Your task to perform on an android device: open app "Cash App" (install if not already installed) Image 0: 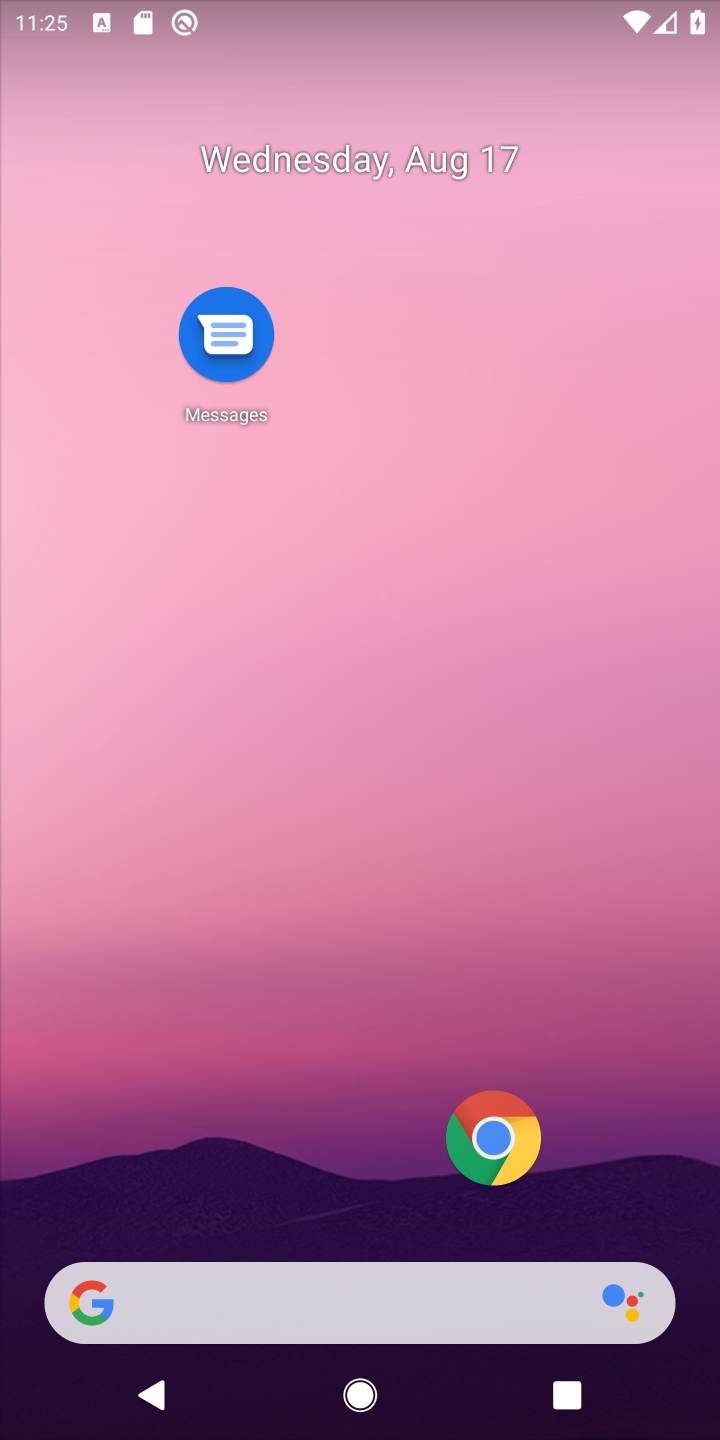
Step 0: drag from (350, 1221) to (473, 443)
Your task to perform on an android device: open app "Cash App" (install if not already installed) Image 1: 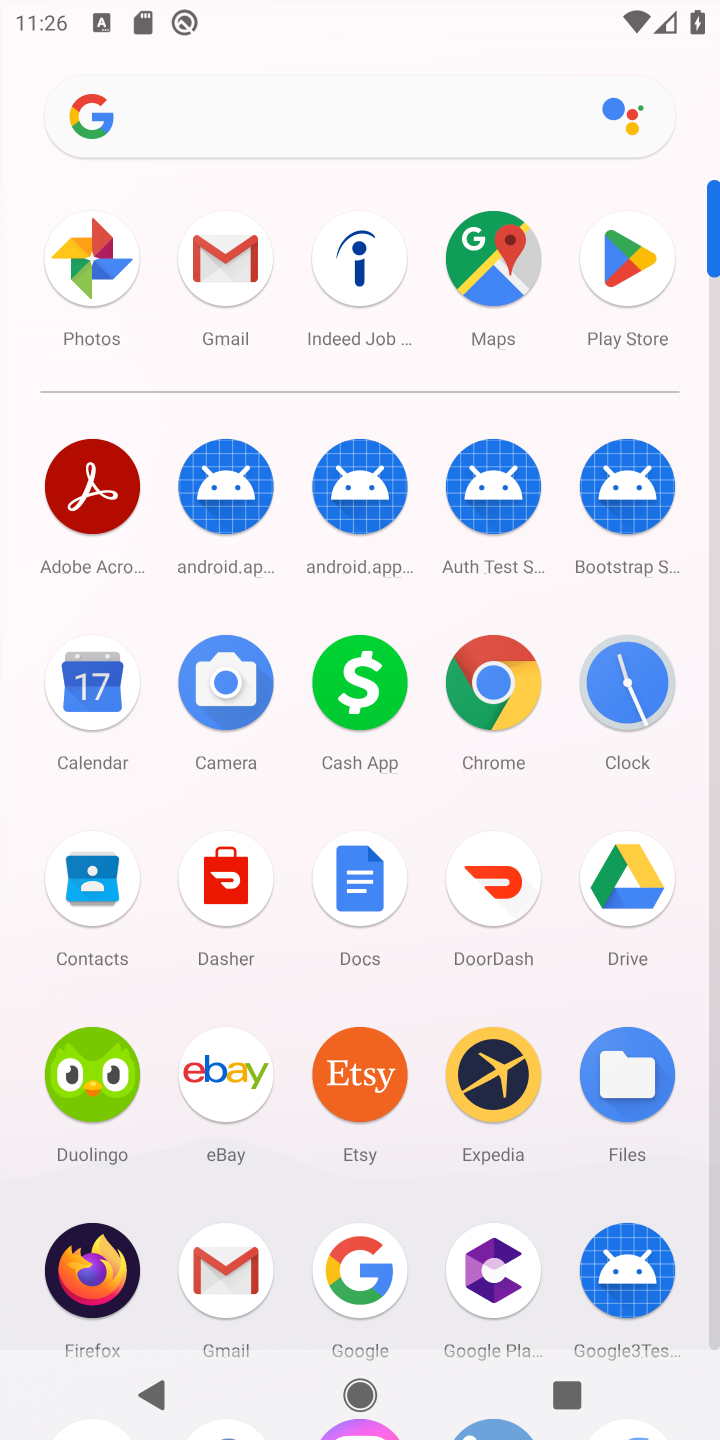
Step 1: click (630, 262)
Your task to perform on an android device: open app "Cash App" (install if not already installed) Image 2: 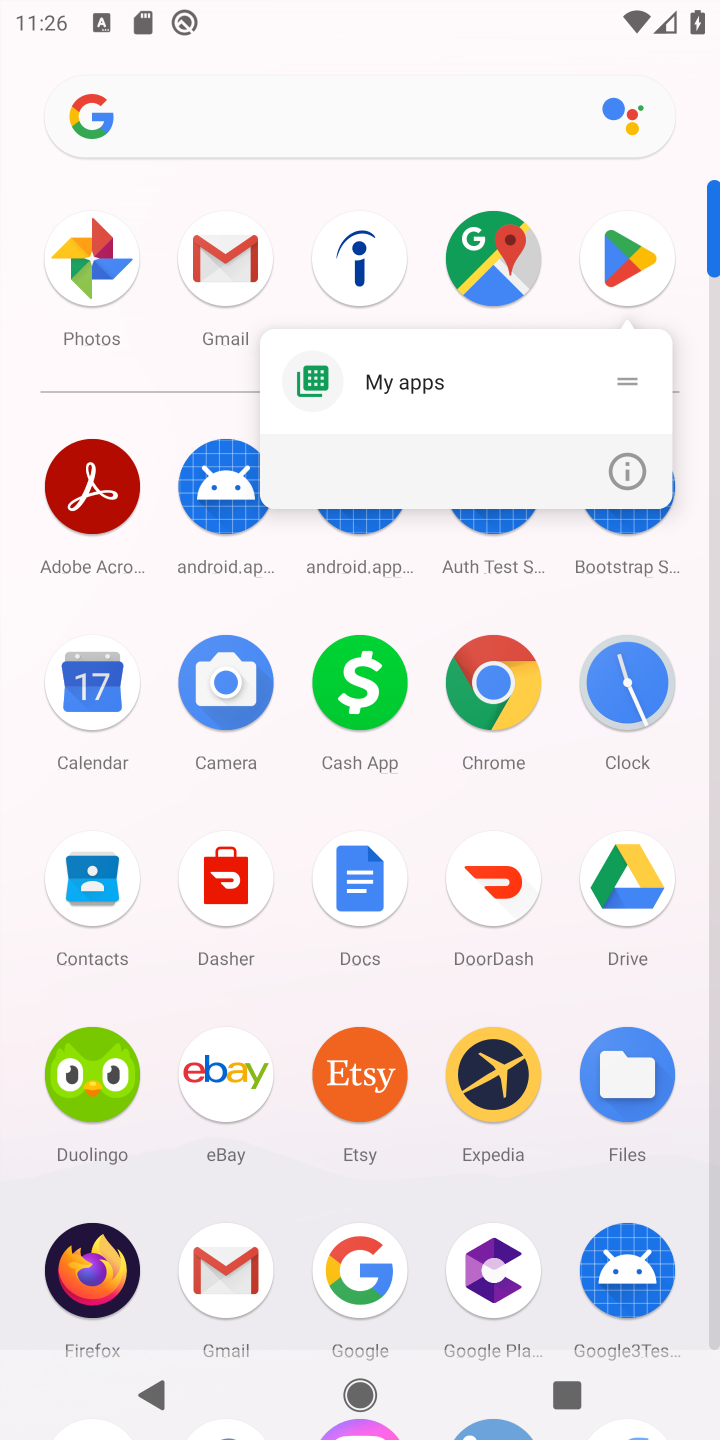
Step 2: click (630, 262)
Your task to perform on an android device: open app "Cash App" (install if not already installed) Image 3: 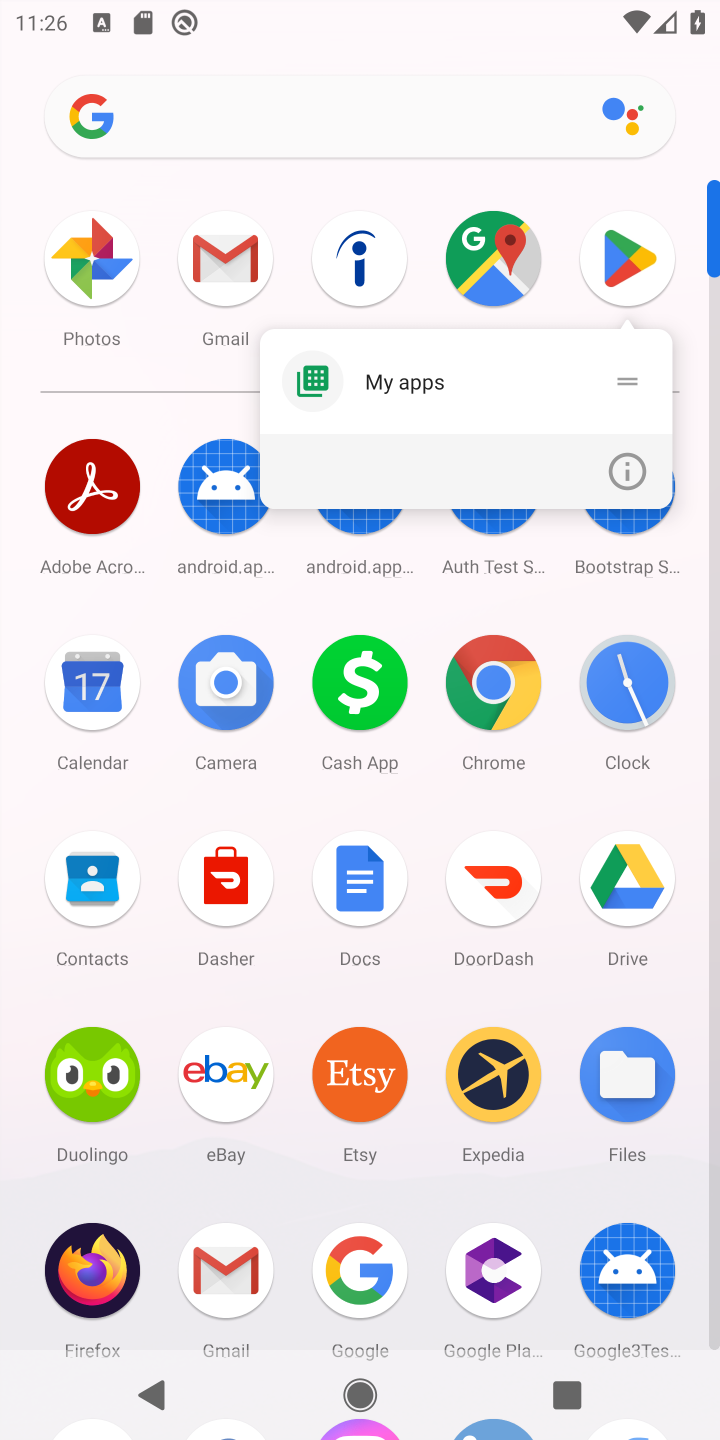
Step 3: click (630, 265)
Your task to perform on an android device: open app "Cash App" (install if not already installed) Image 4: 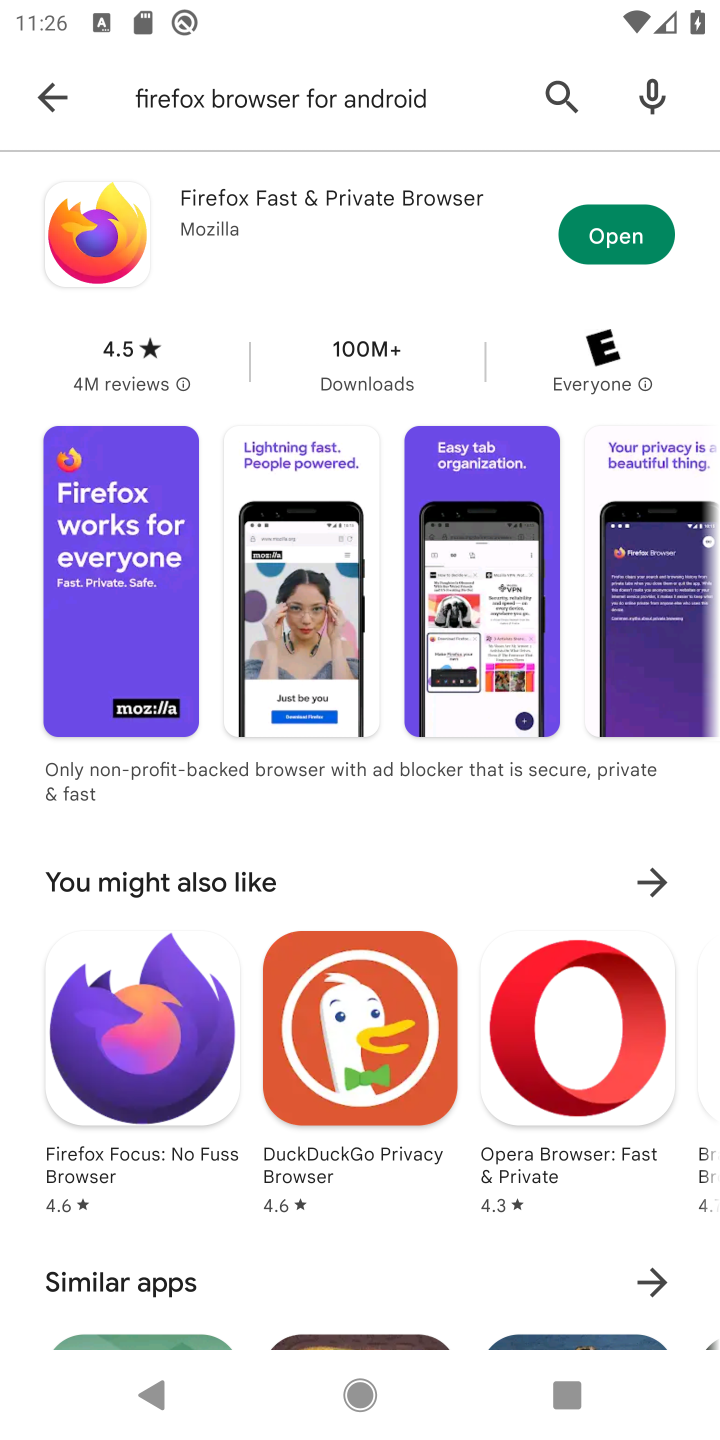
Step 4: click (53, 101)
Your task to perform on an android device: open app "Cash App" (install if not already installed) Image 5: 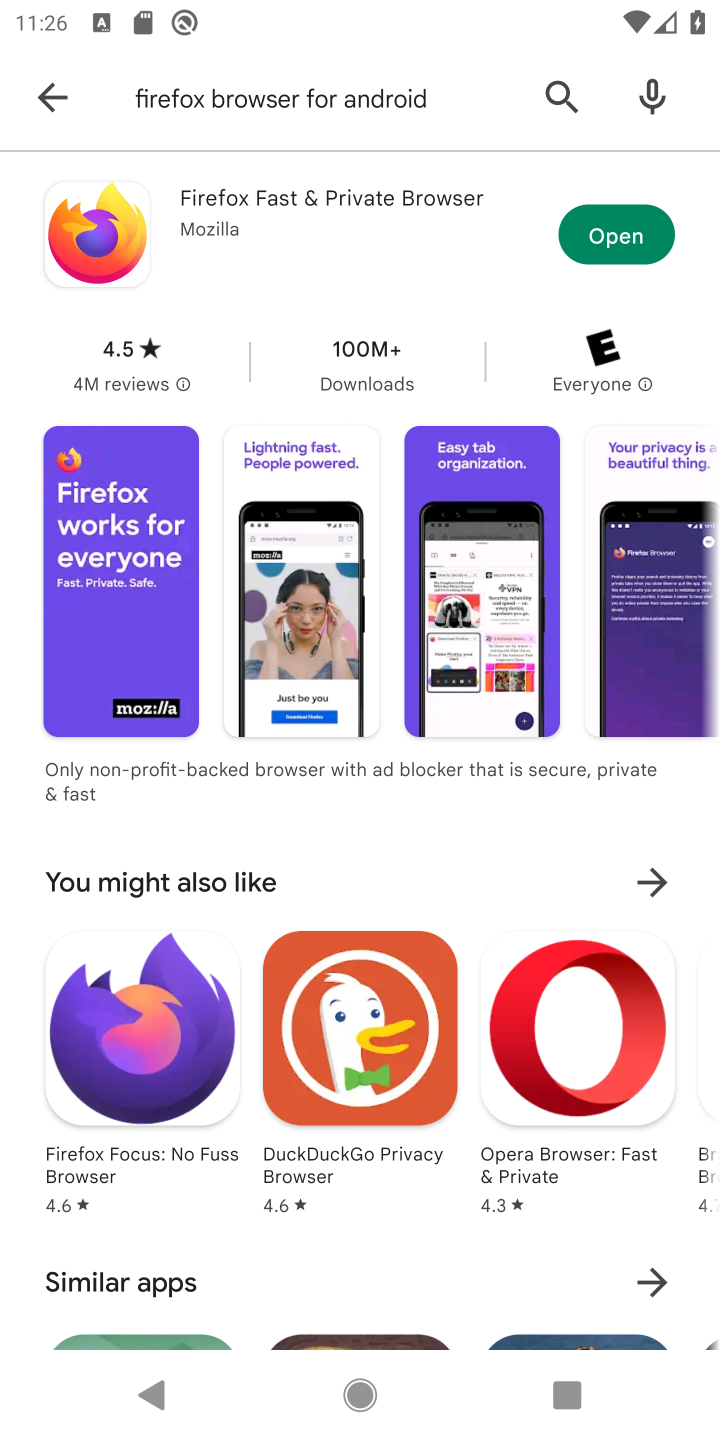
Step 5: click (28, 69)
Your task to perform on an android device: open app "Cash App" (install if not already installed) Image 6: 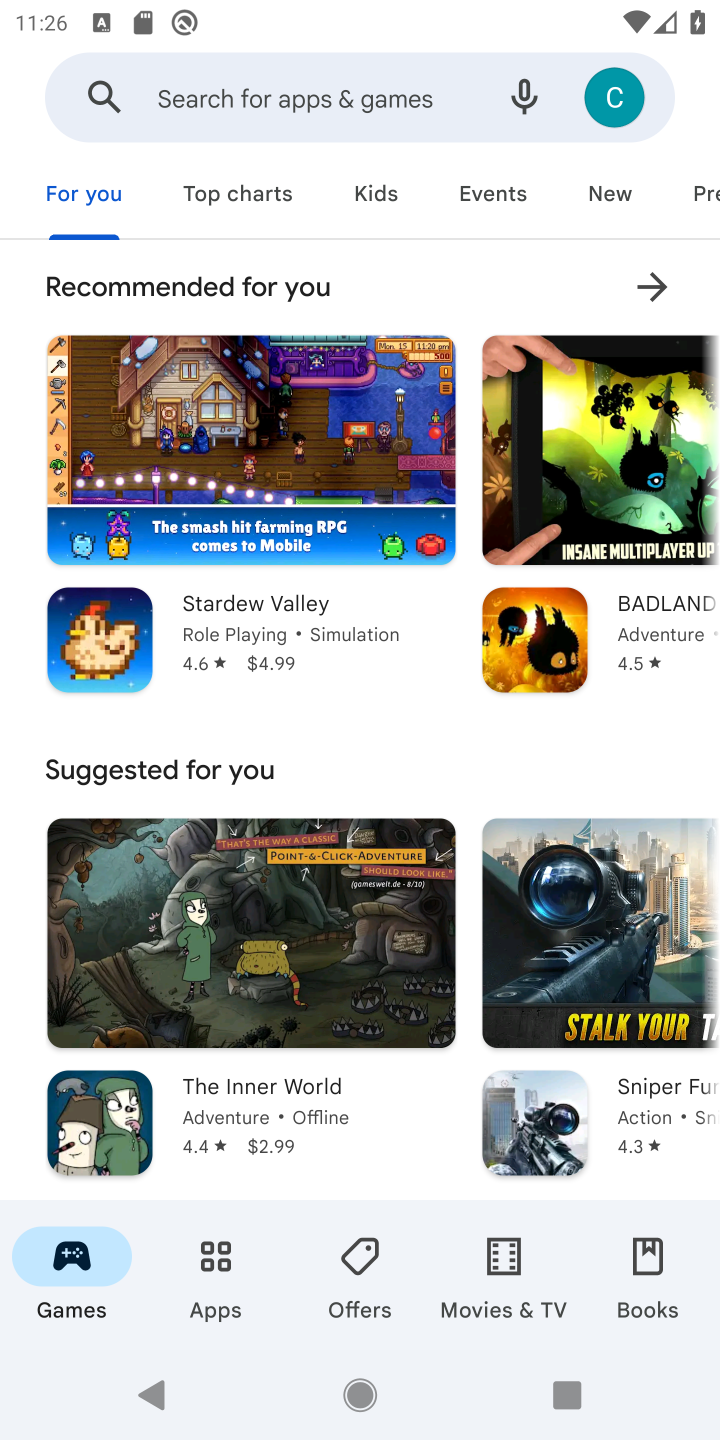
Step 6: click (388, 77)
Your task to perform on an android device: open app "Cash App" (install if not already installed) Image 7: 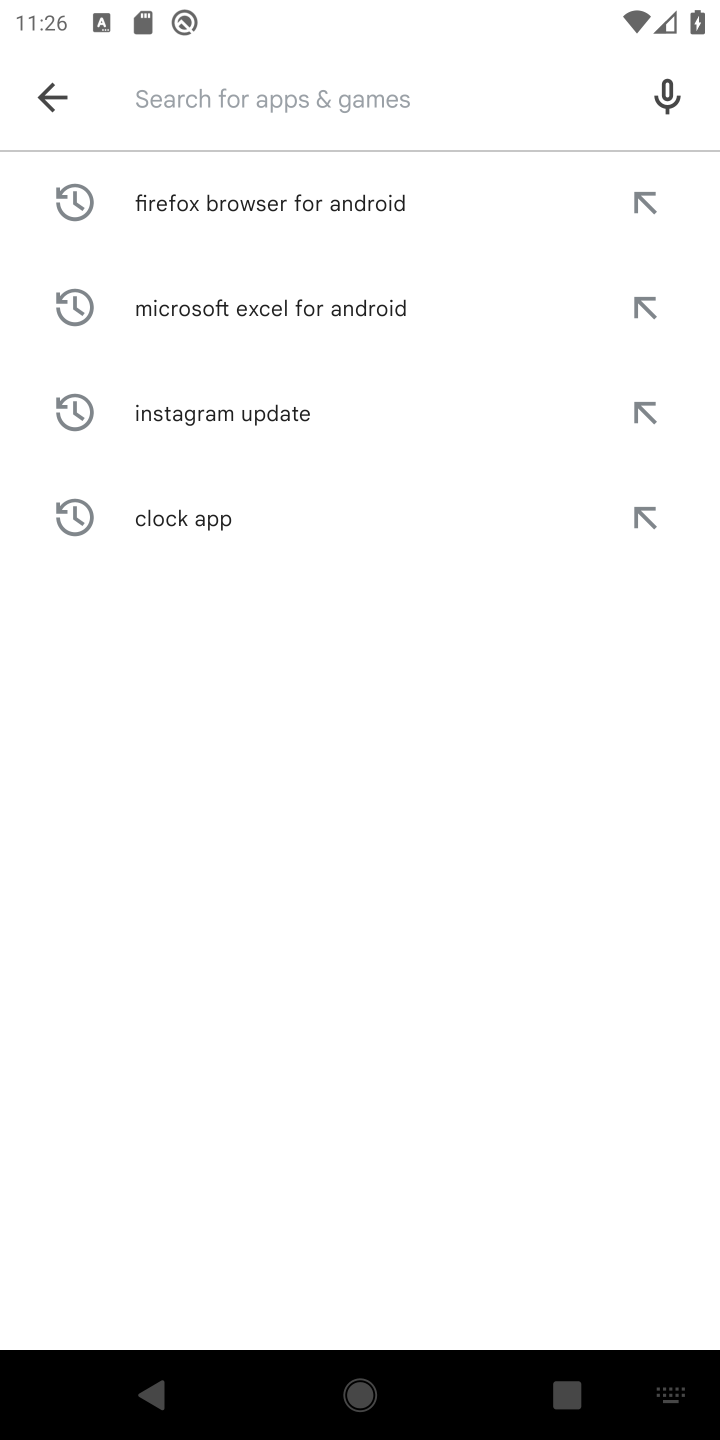
Step 7: type "Cash App "
Your task to perform on an android device: open app "Cash App" (install if not already installed) Image 8: 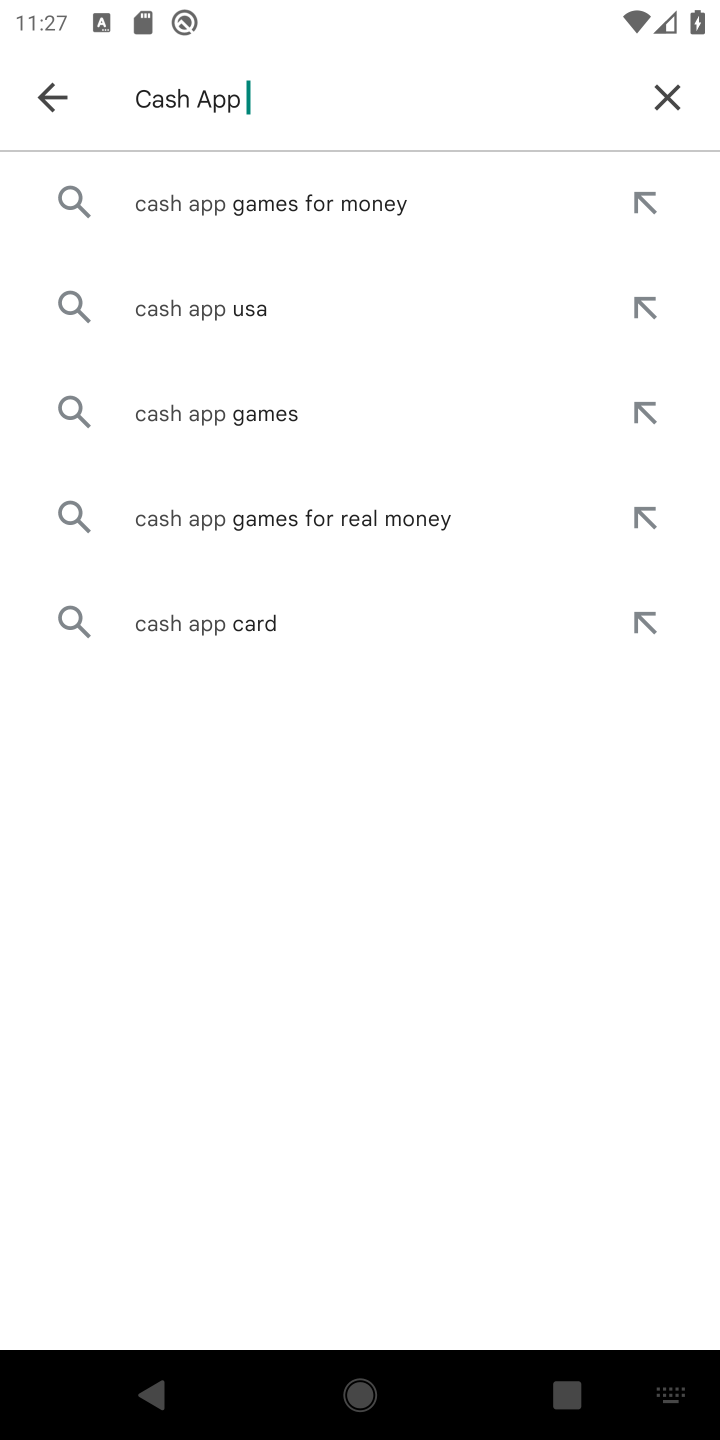
Step 8: click (204, 304)
Your task to perform on an android device: open app "Cash App" (install if not already installed) Image 9: 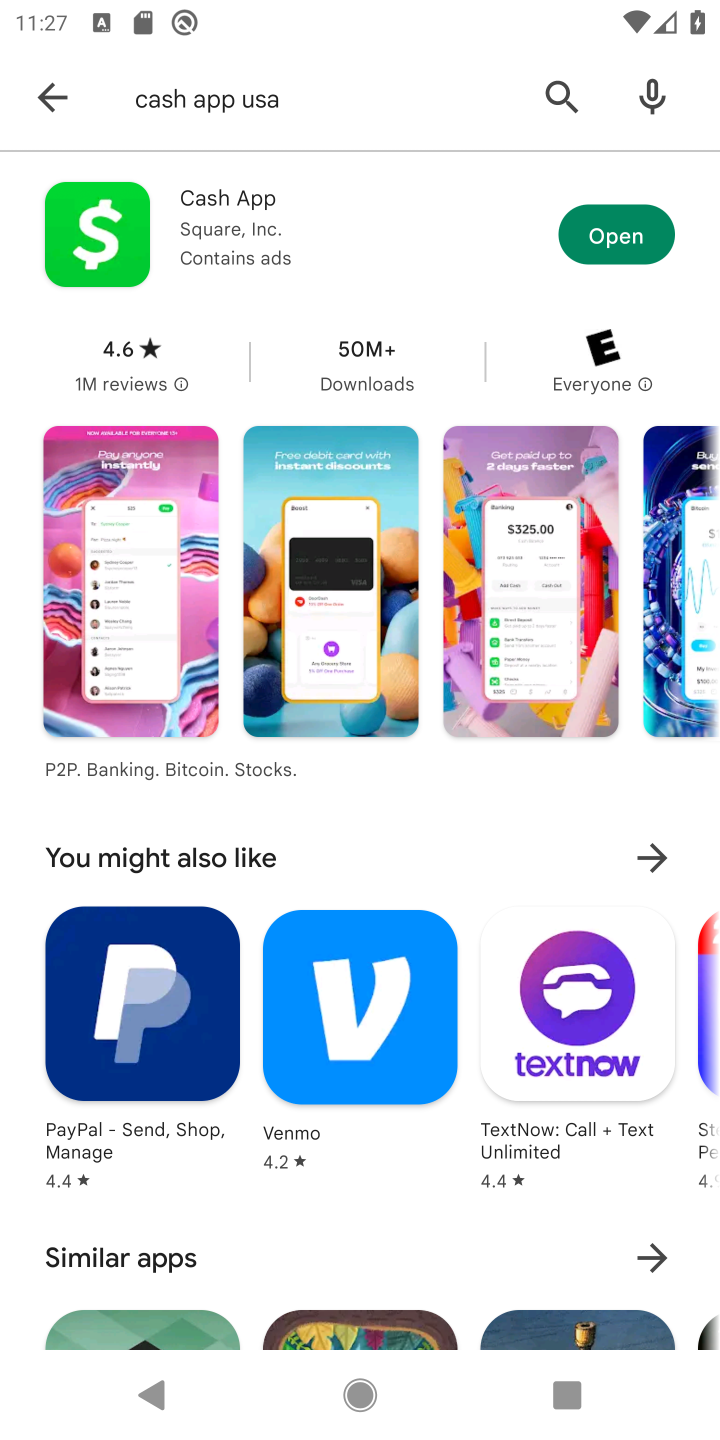
Step 9: click (611, 253)
Your task to perform on an android device: open app "Cash App" (install if not already installed) Image 10: 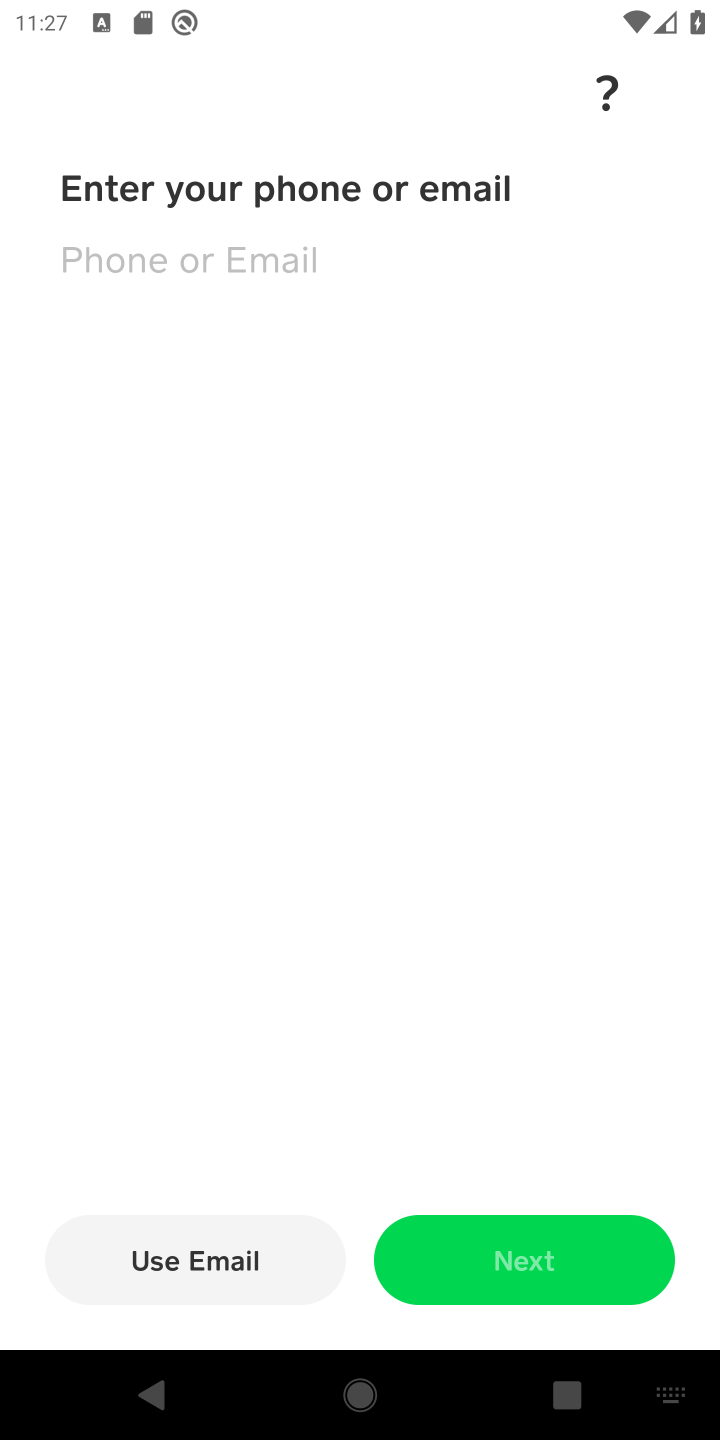
Step 10: task complete